Your task to perform on an android device: delete location history Image 0: 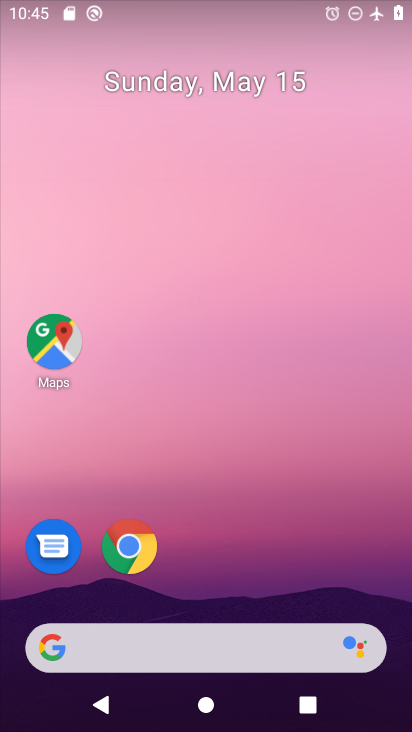
Step 0: drag from (257, 471) to (327, 89)
Your task to perform on an android device: delete location history Image 1: 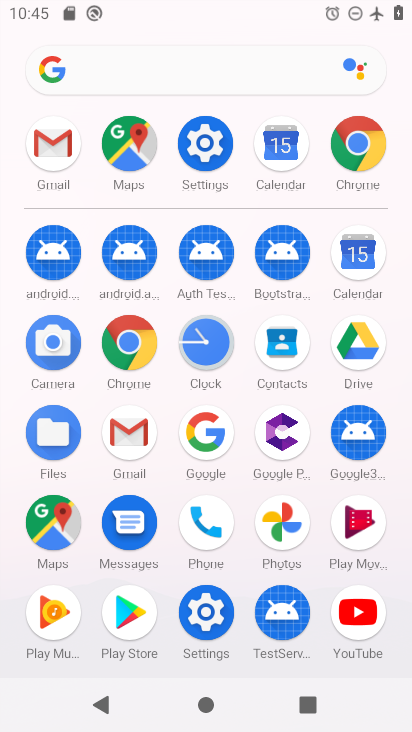
Step 1: click (50, 527)
Your task to perform on an android device: delete location history Image 2: 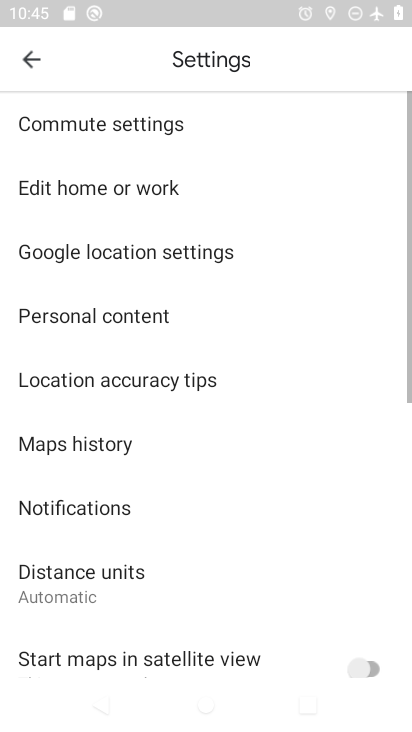
Step 2: click (68, 450)
Your task to perform on an android device: delete location history Image 3: 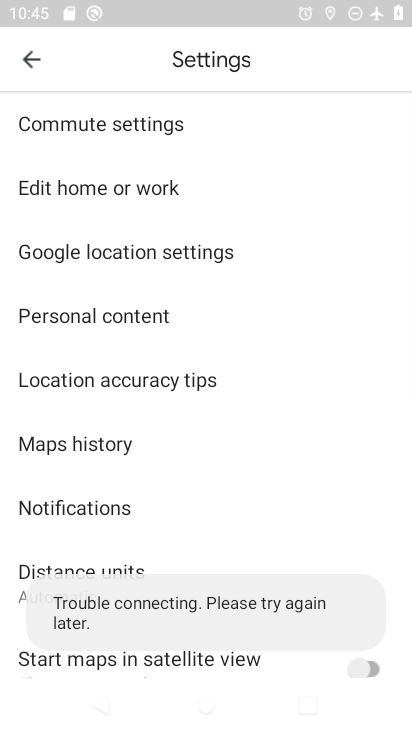
Step 3: drag from (244, 575) to (348, 210)
Your task to perform on an android device: delete location history Image 4: 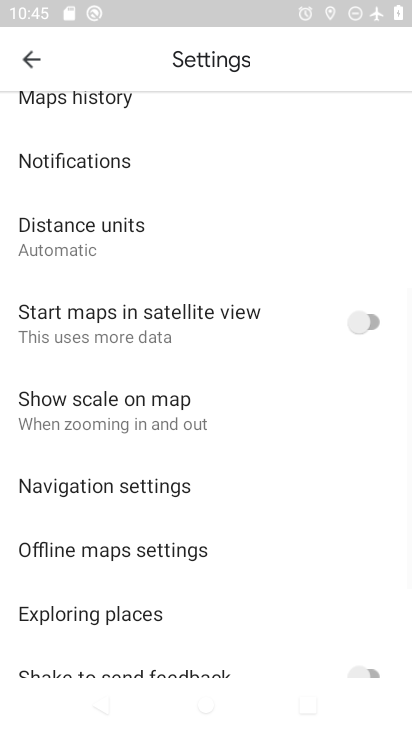
Step 4: drag from (201, 591) to (263, 664)
Your task to perform on an android device: delete location history Image 5: 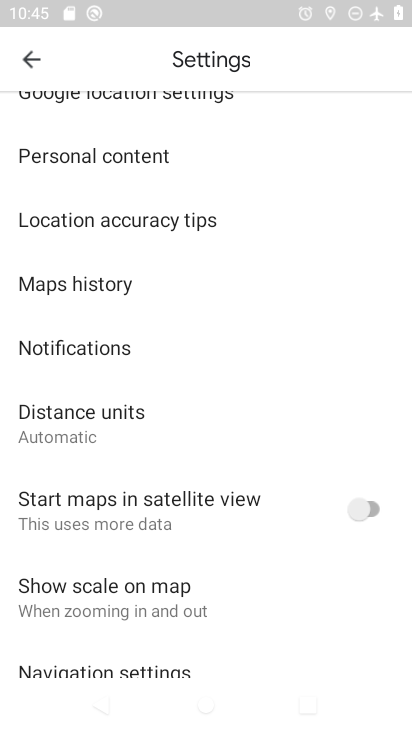
Step 5: click (100, 282)
Your task to perform on an android device: delete location history Image 6: 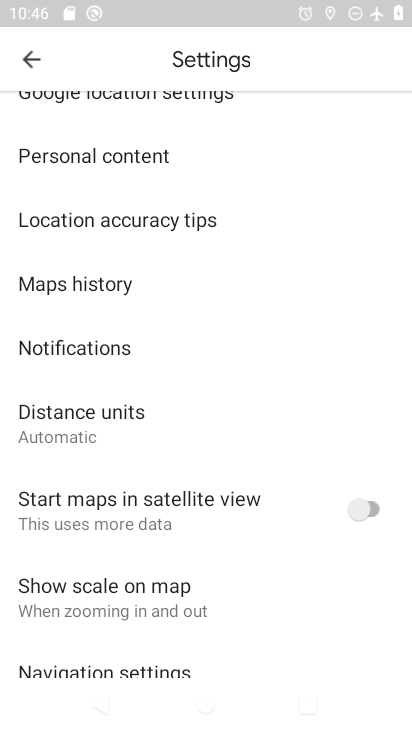
Step 6: click (107, 301)
Your task to perform on an android device: delete location history Image 7: 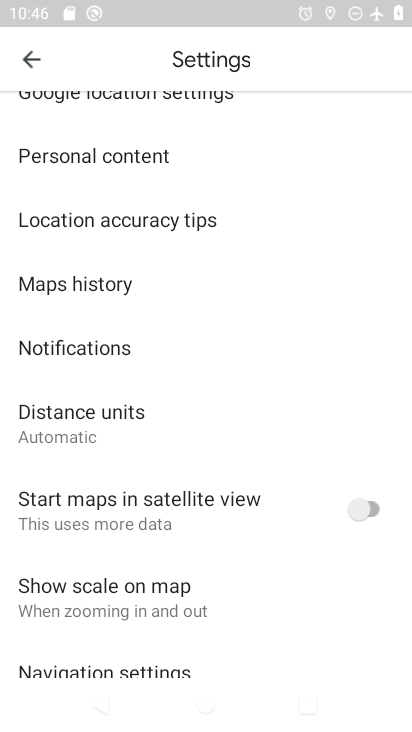
Step 7: task complete